Your task to perform on an android device: Open ESPN.com Image 0: 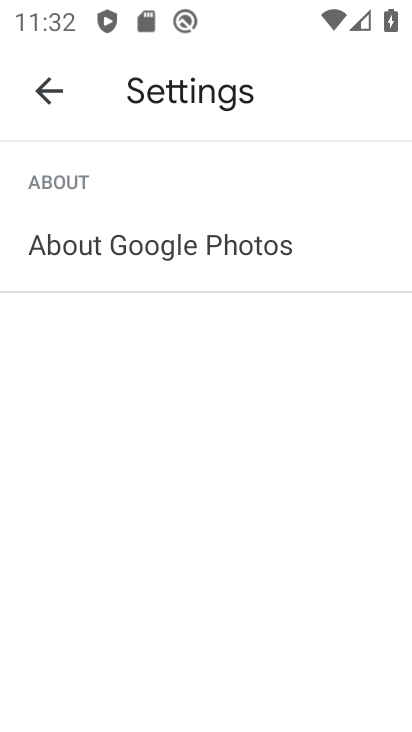
Step 0: press home button
Your task to perform on an android device: Open ESPN.com Image 1: 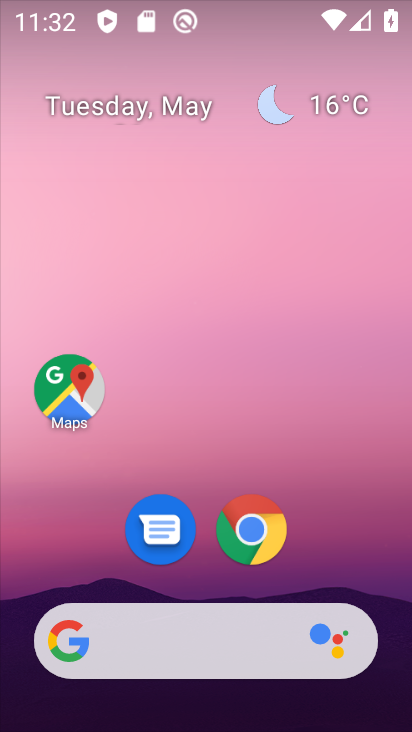
Step 1: click (262, 539)
Your task to perform on an android device: Open ESPN.com Image 2: 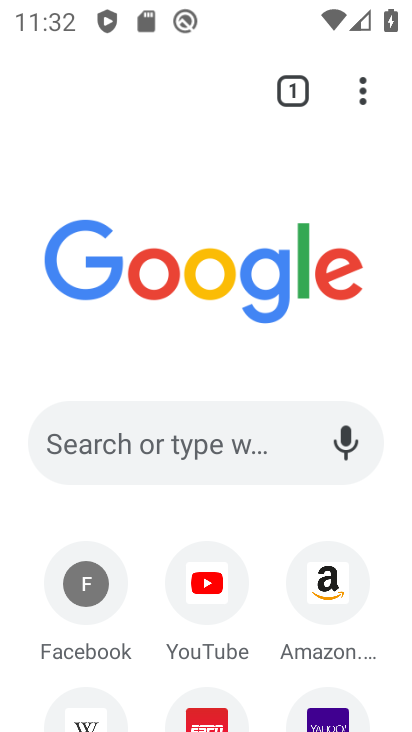
Step 2: drag from (201, 656) to (265, 342)
Your task to perform on an android device: Open ESPN.com Image 3: 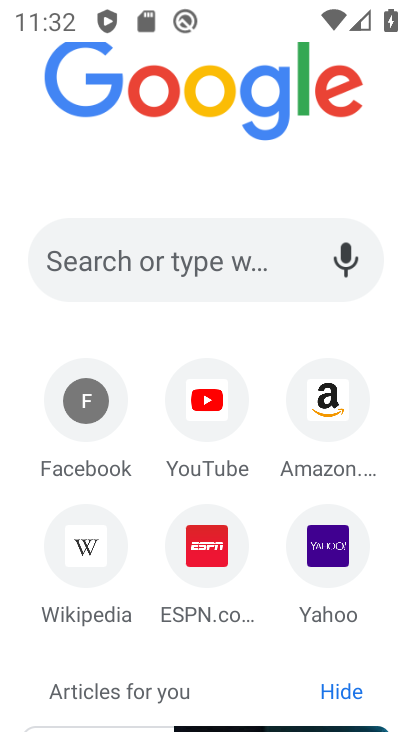
Step 3: click (235, 546)
Your task to perform on an android device: Open ESPN.com Image 4: 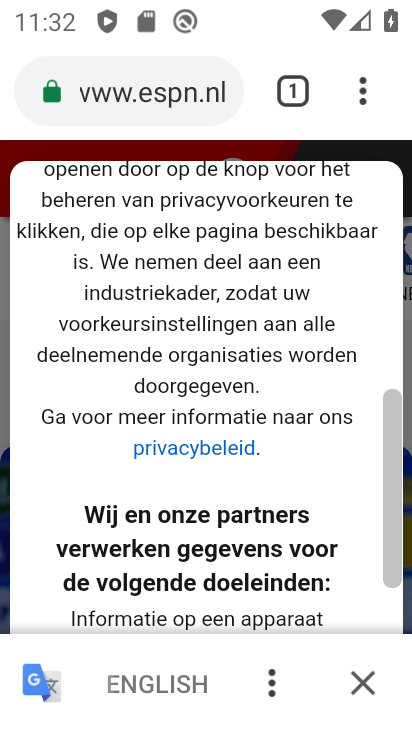
Step 4: click (369, 676)
Your task to perform on an android device: Open ESPN.com Image 5: 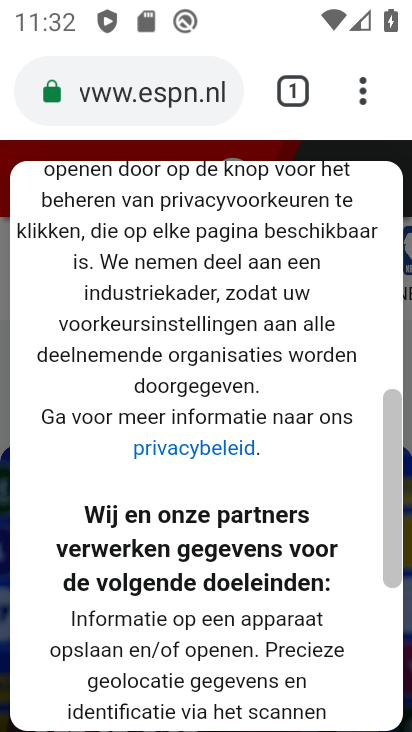
Step 5: drag from (233, 653) to (303, 212)
Your task to perform on an android device: Open ESPN.com Image 6: 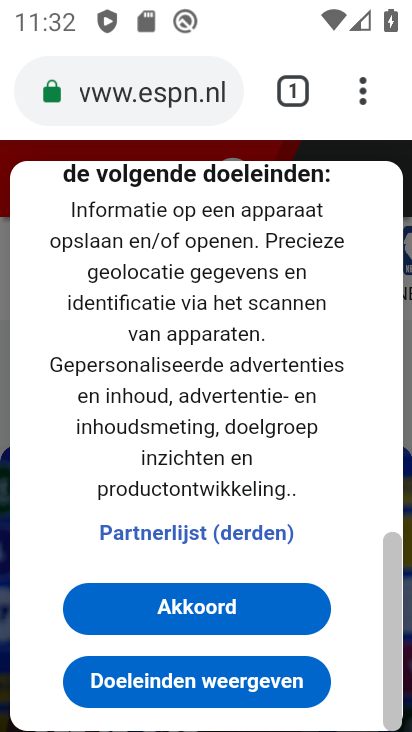
Step 6: click (261, 616)
Your task to perform on an android device: Open ESPN.com Image 7: 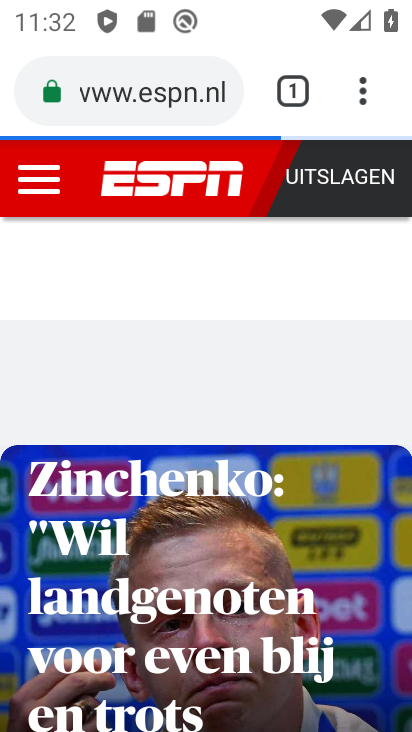
Step 7: task complete